Your task to perform on an android device: Open display settings Image 0: 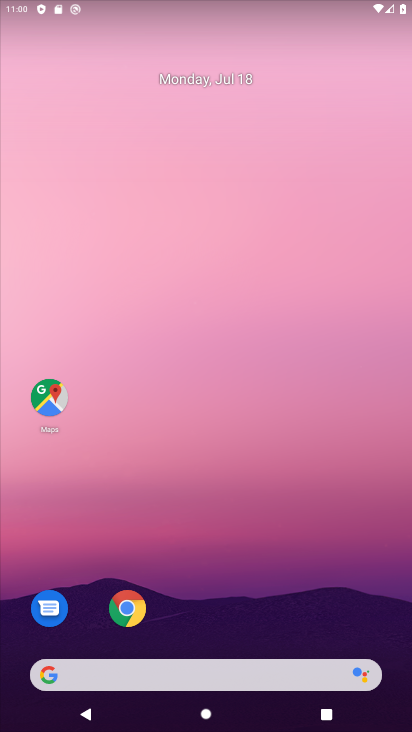
Step 0: drag from (301, 612) to (277, 275)
Your task to perform on an android device: Open display settings Image 1: 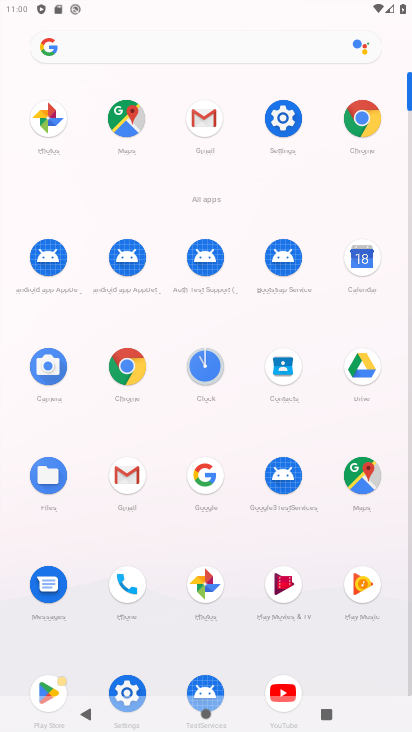
Step 1: click (288, 117)
Your task to perform on an android device: Open display settings Image 2: 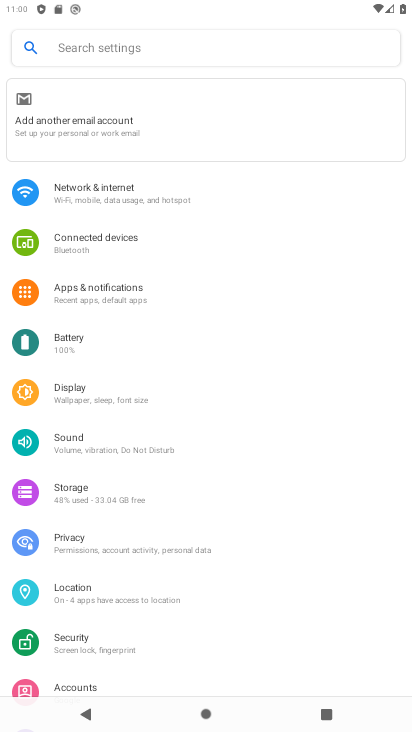
Step 2: click (114, 389)
Your task to perform on an android device: Open display settings Image 3: 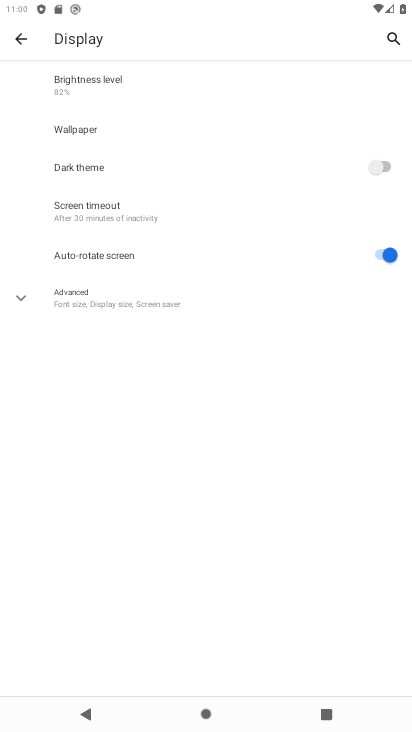
Step 3: task complete